Your task to perform on an android device: open a bookmark in the chrome app Image 0: 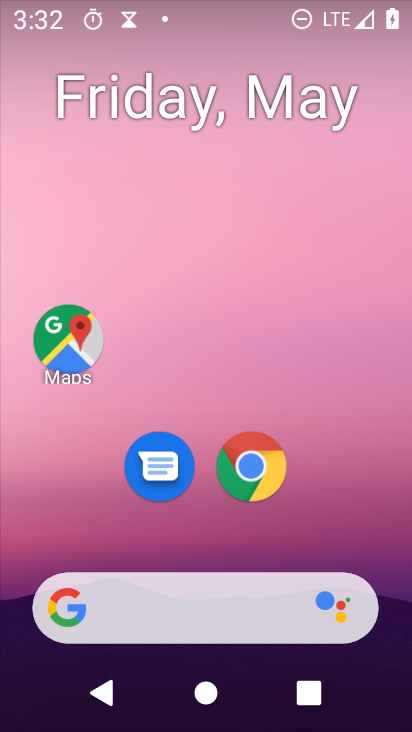
Step 0: drag from (384, 521) to (368, 60)
Your task to perform on an android device: open a bookmark in the chrome app Image 1: 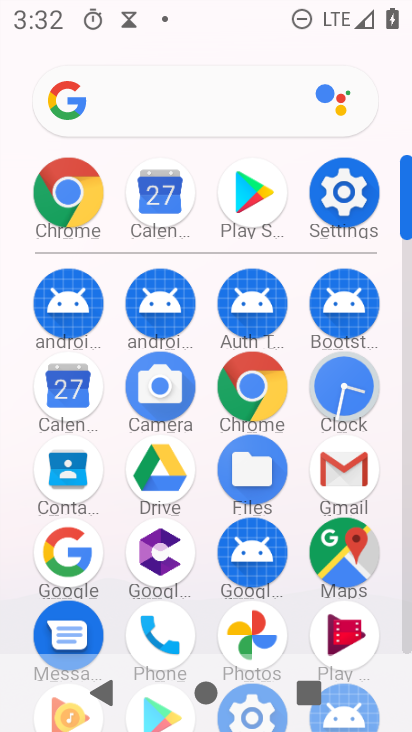
Step 1: click (96, 202)
Your task to perform on an android device: open a bookmark in the chrome app Image 2: 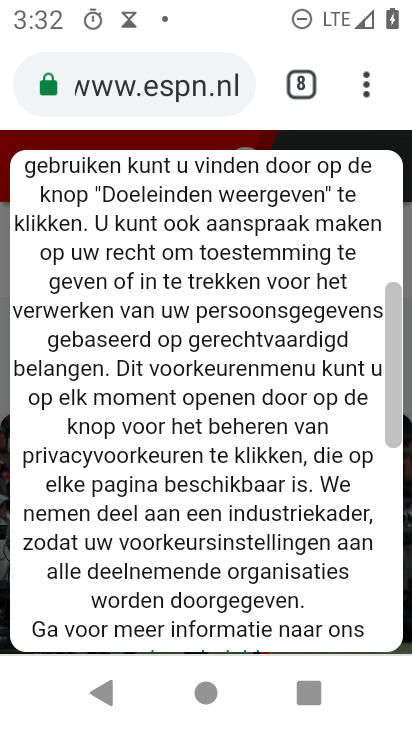
Step 2: task complete